Your task to perform on an android device: Open display settings Image 0: 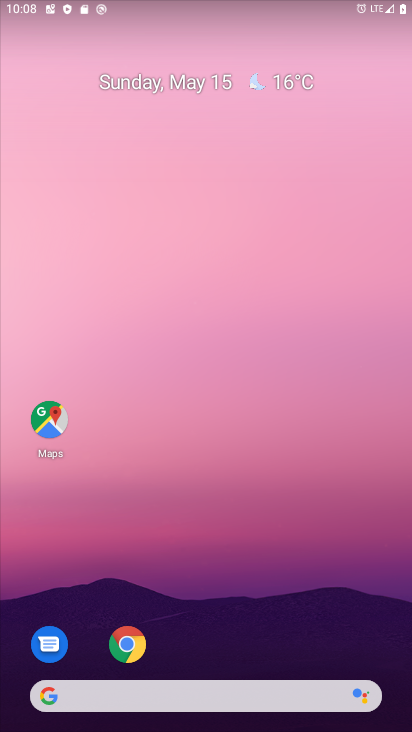
Step 0: drag from (201, 617) to (281, 147)
Your task to perform on an android device: Open display settings Image 1: 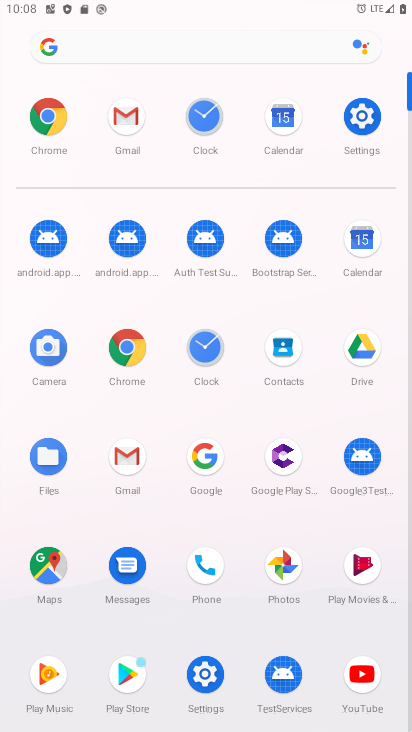
Step 1: click (219, 671)
Your task to perform on an android device: Open display settings Image 2: 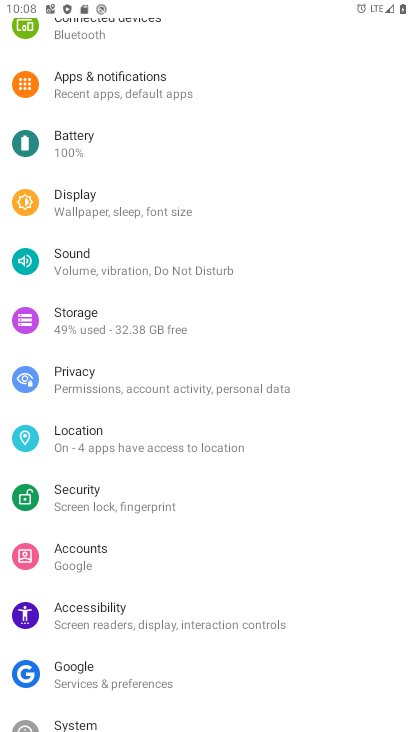
Step 2: click (93, 208)
Your task to perform on an android device: Open display settings Image 3: 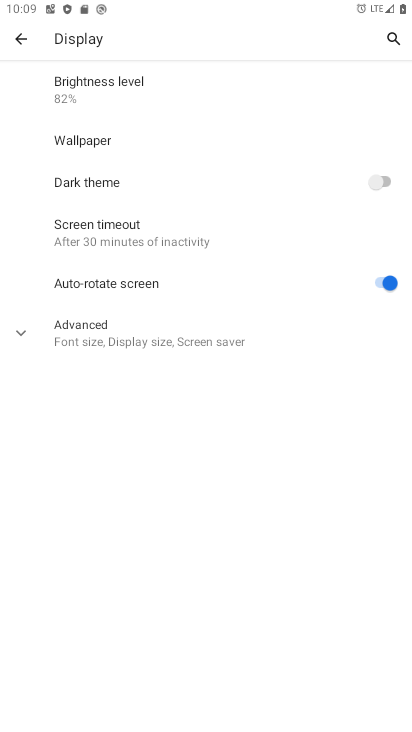
Step 3: task complete